Your task to perform on an android device: Search for Italian restaurants on Maps Image 0: 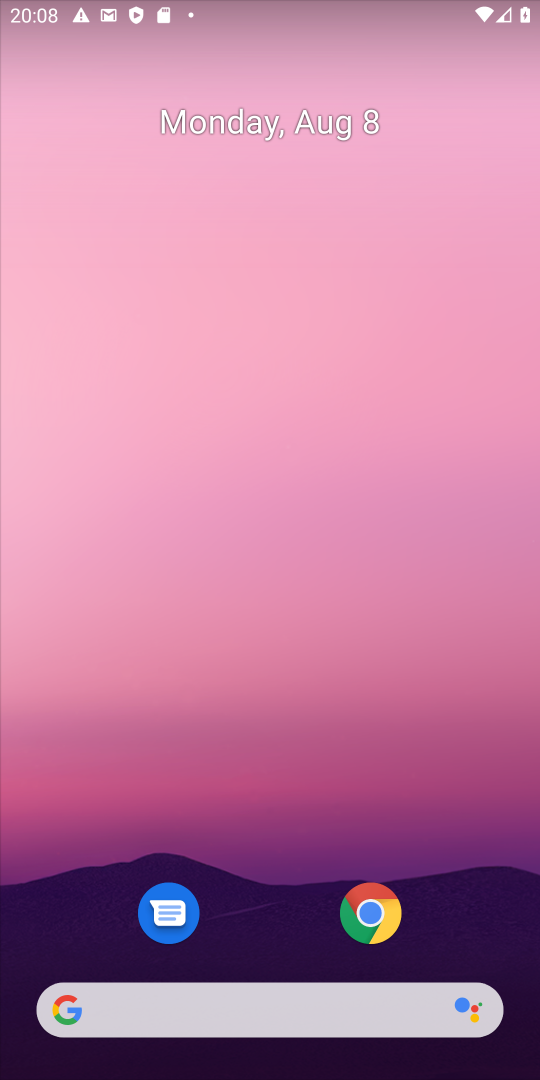
Step 0: press home button
Your task to perform on an android device: Search for Italian restaurants on Maps Image 1: 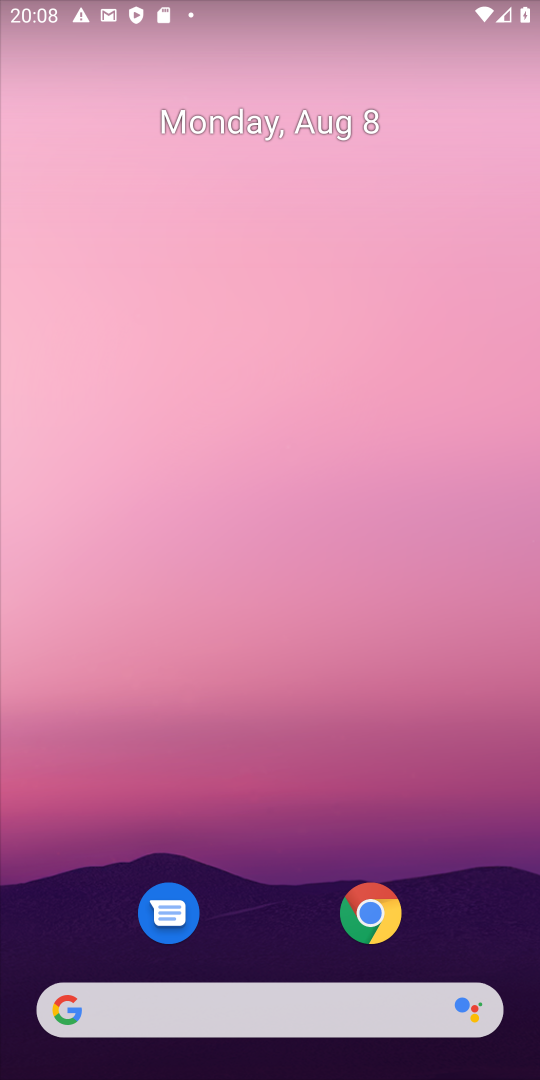
Step 1: drag from (207, 908) to (212, 513)
Your task to perform on an android device: Search for Italian restaurants on Maps Image 2: 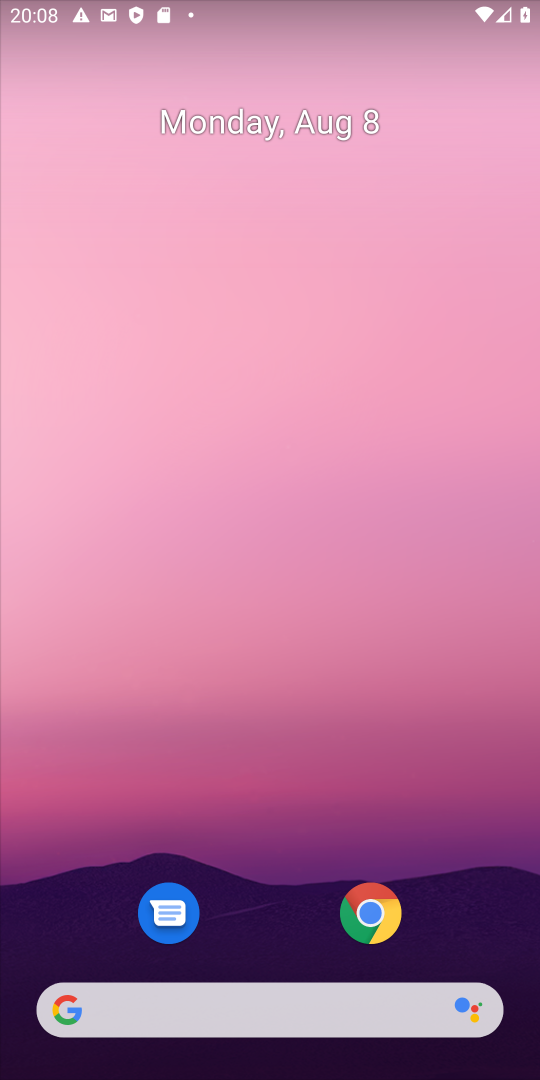
Step 2: drag from (350, 904) to (291, 302)
Your task to perform on an android device: Search for Italian restaurants on Maps Image 3: 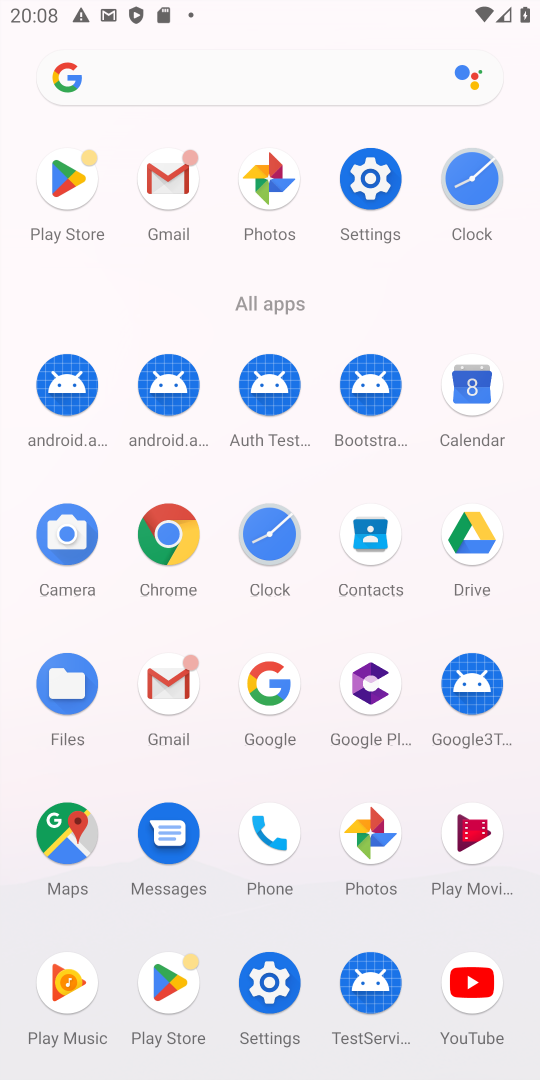
Step 3: click (82, 822)
Your task to perform on an android device: Search for Italian restaurants on Maps Image 4: 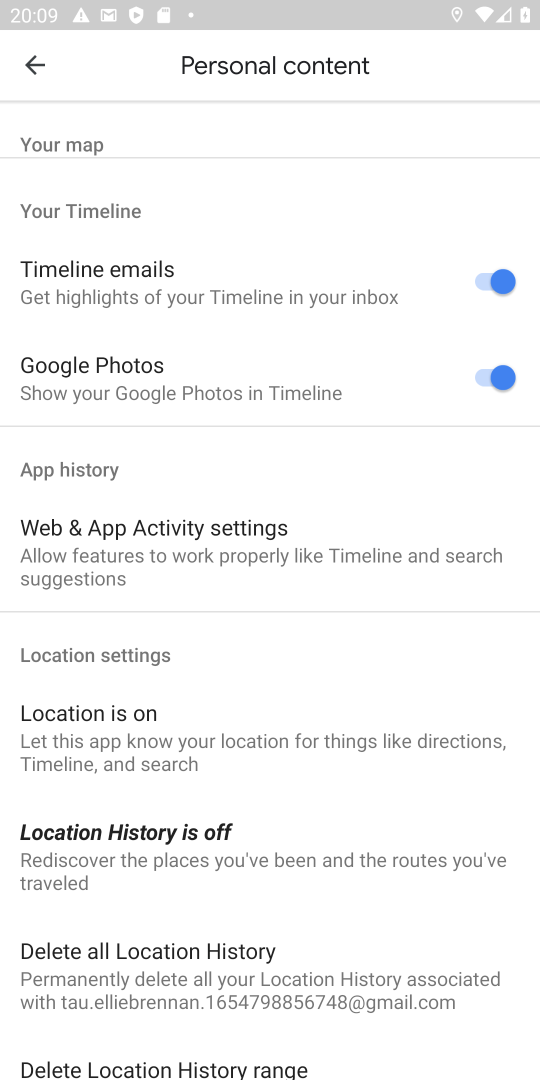
Step 4: click (33, 65)
Your task to perform on an android device: Search for Italian restaurants on Maps Image 5: 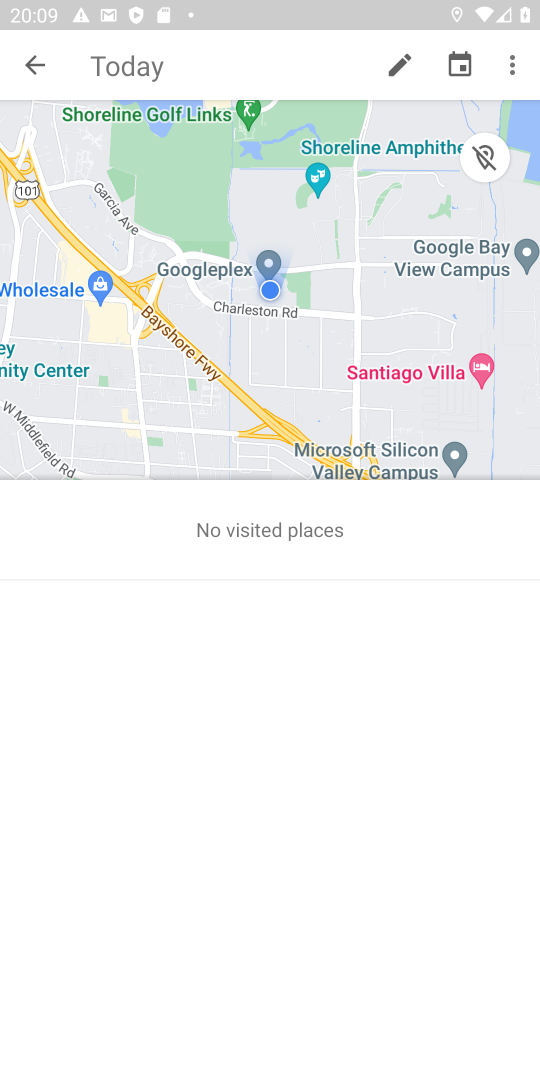
Step 5: click (26, 52)
Your task to perform on an android device: Search for Italian restaurants on Maps Image 6: 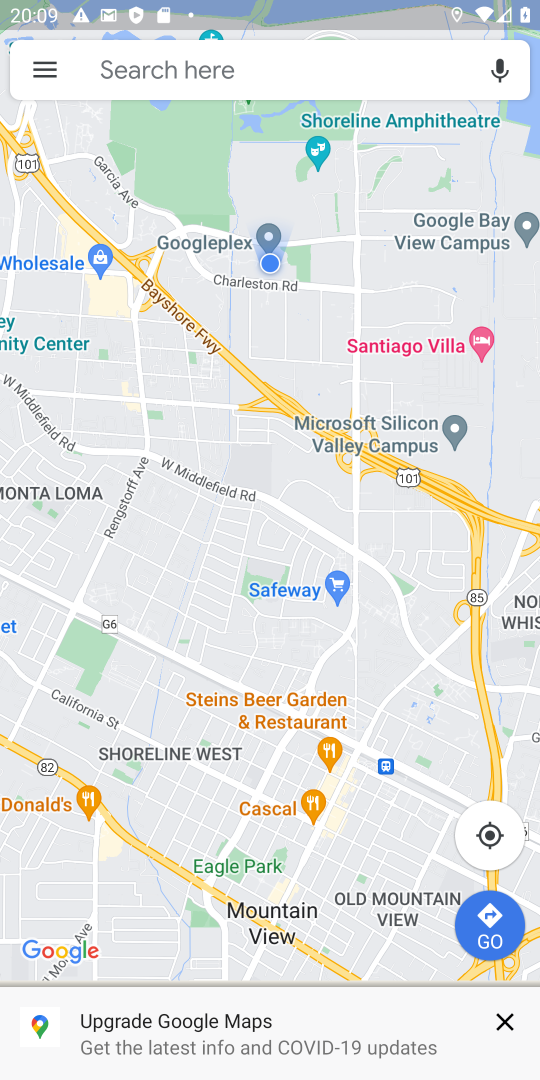
Step 6: click (173, 66)
Your task to perform on an android device: Search for Italian restaurants on Maps Image 7: 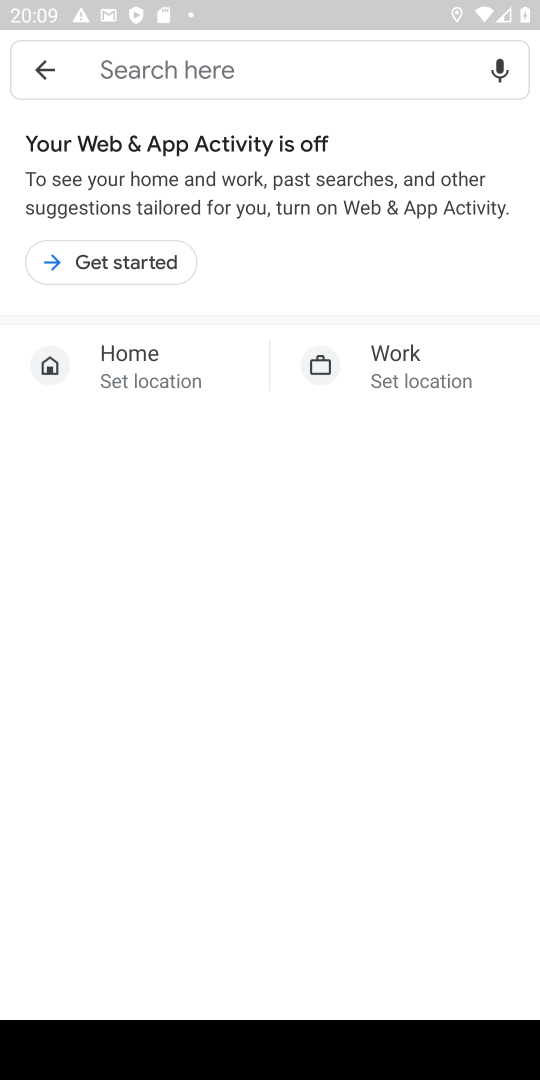
Step 7: type "Italian restaurants"
Your task to perform on an android device: Search for Italian restaurants on Maps Image 8: 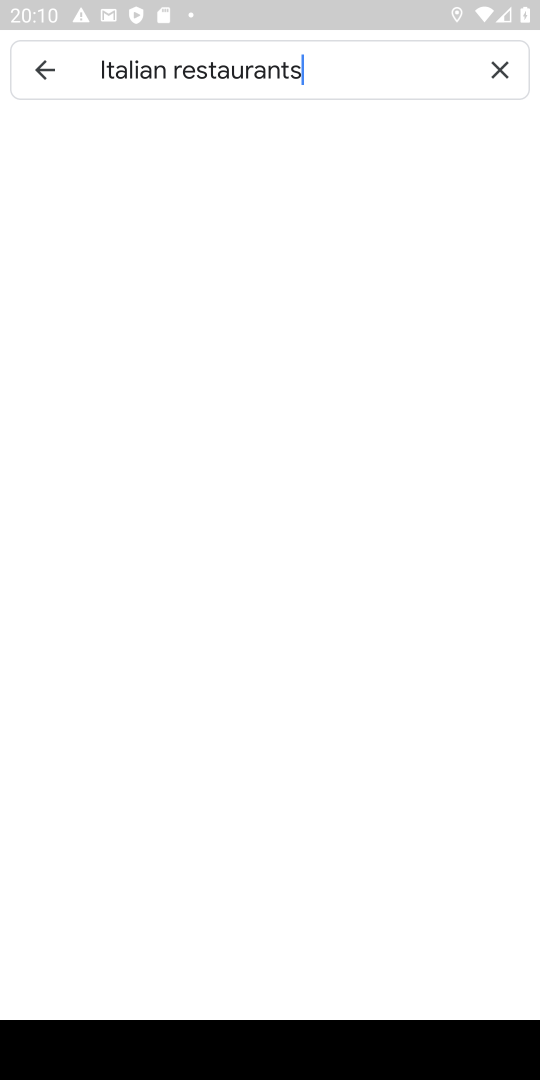
Step 8: type ""
Your task to perform on an android device: Search for Italian restaurants on Maps Image 9: 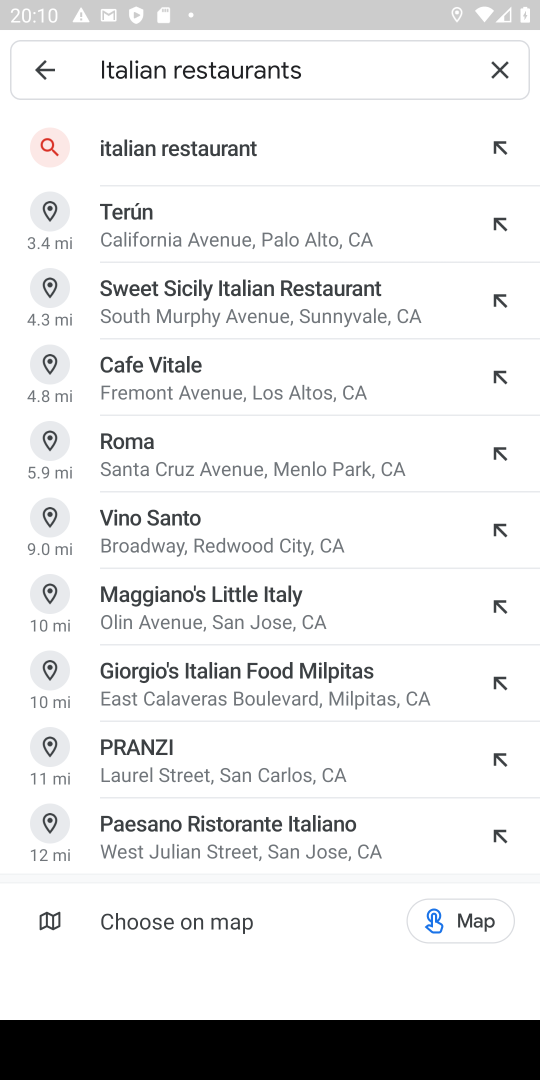
Step 9: click (172, 149)
Your task to perform on an android device: Search for Italian restaurants on Maps Image 10: 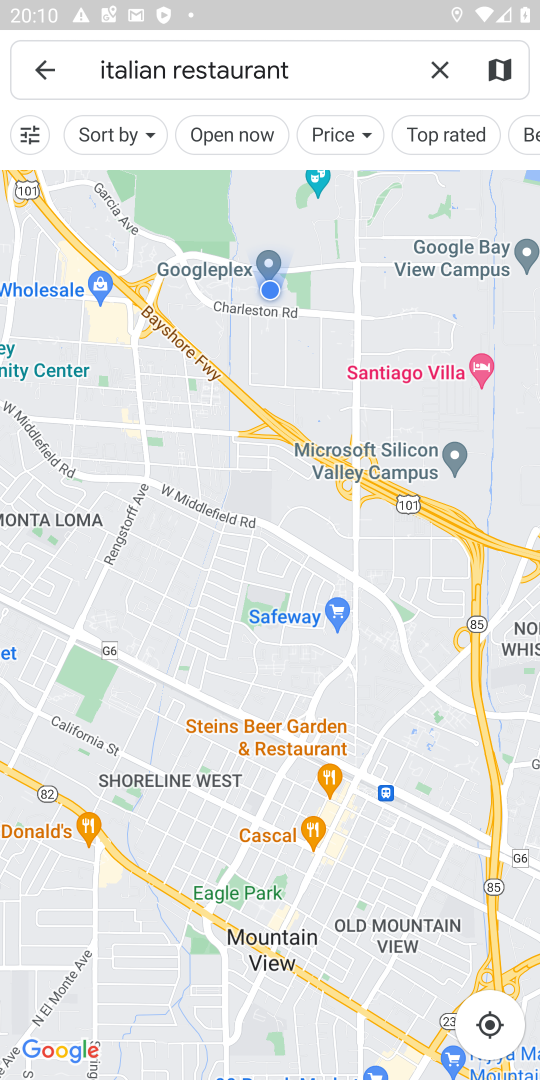
Step 10: task complete